Your task to perform on an android device: toggle translation in the chrome app Image 0: 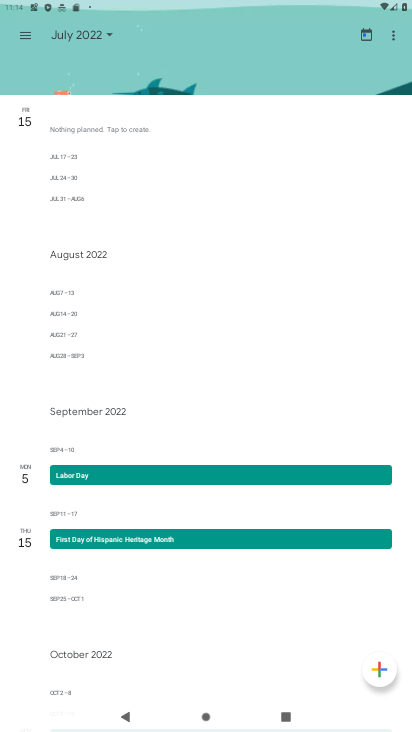
Step 0: press home button
Your task to perform on an android device: toggle translation in the chrome app Image 1: 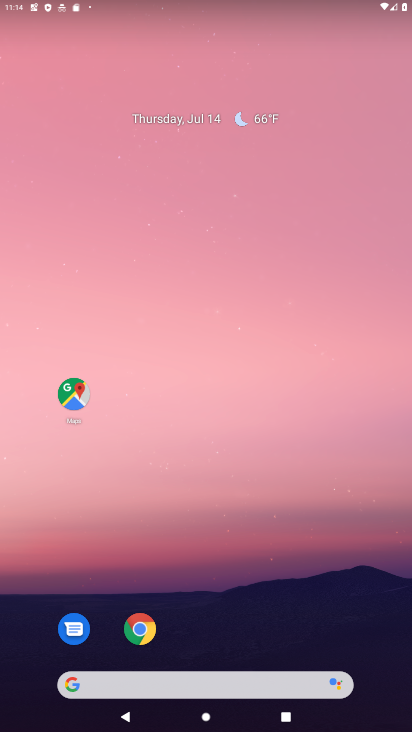
Step 1: click (132, 627)
Your task to perform on an android device: toggle translation in the chrome app Image 2: 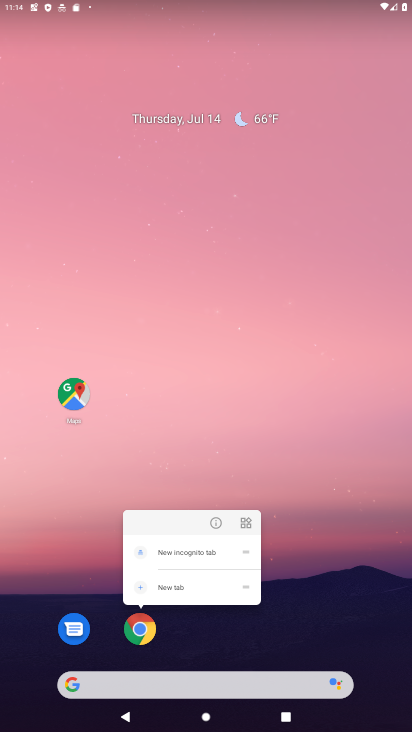
Step 2: click (150, 635)
Your task to perform on an android device: toggle translation in the chrome app Image 3: 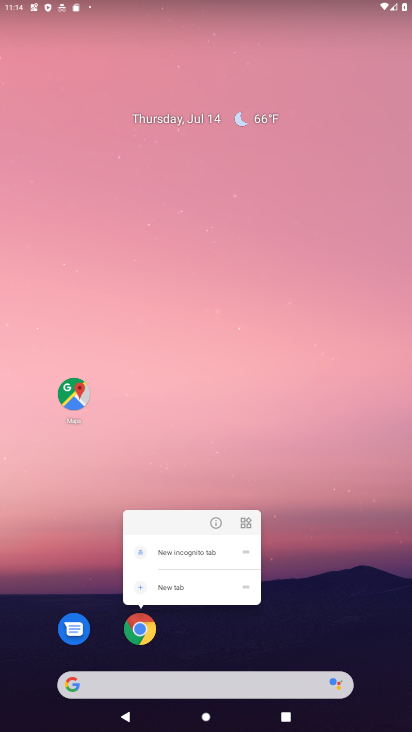
Step 3: click (142, 639)
Your task to perform on an android device: toggle translation in the chrome app Image 4: 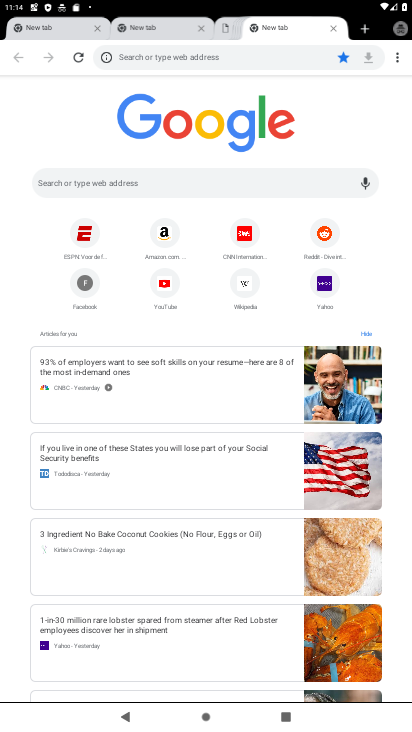
Step 4: drag from (391, 62) to (275, 269)
Your task to perform on an android device: toggle translation in the chrome app Image 5: 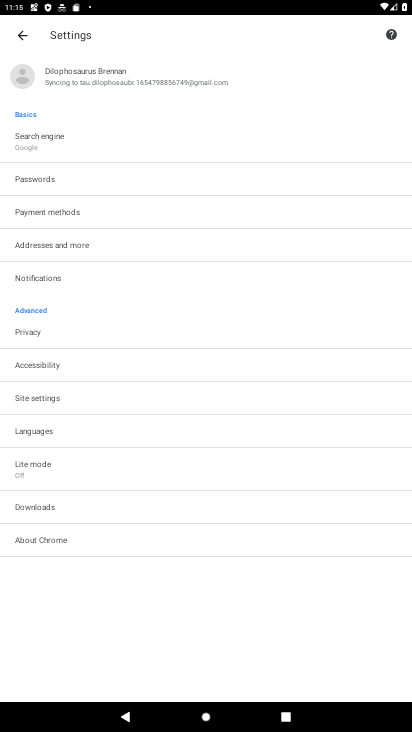
Step 5: click (45, 430)
Your task to perform on an android device: toggle translation in the chrome app Image 6: 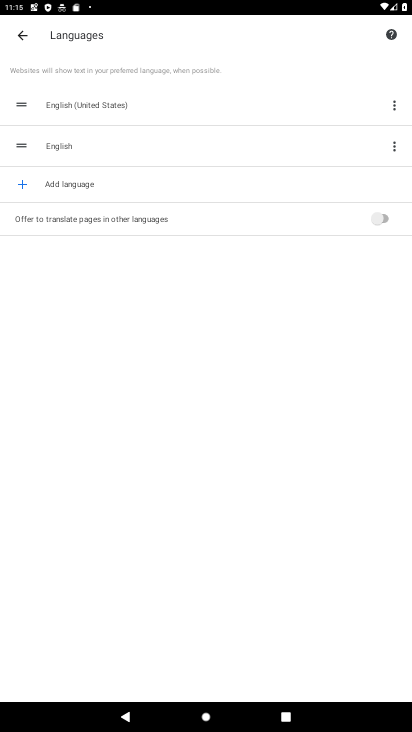
Step 6: click (388, 218)
Your task to perform on an android device: toggle translation in the chrome app Image 7: 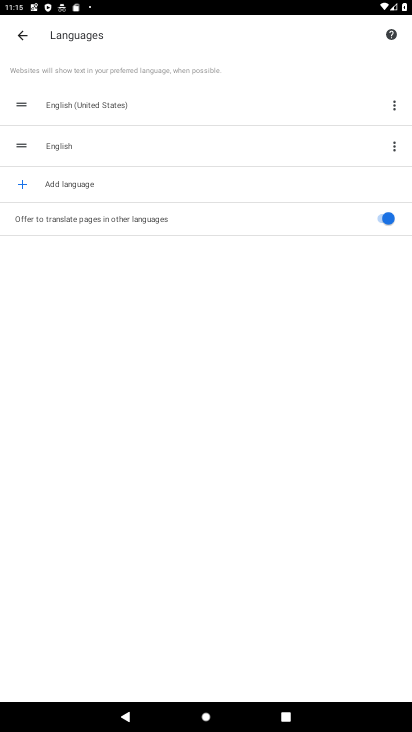
Step 7: task complete